Your task to perform on an android device: When is my next meeting? Image 0: 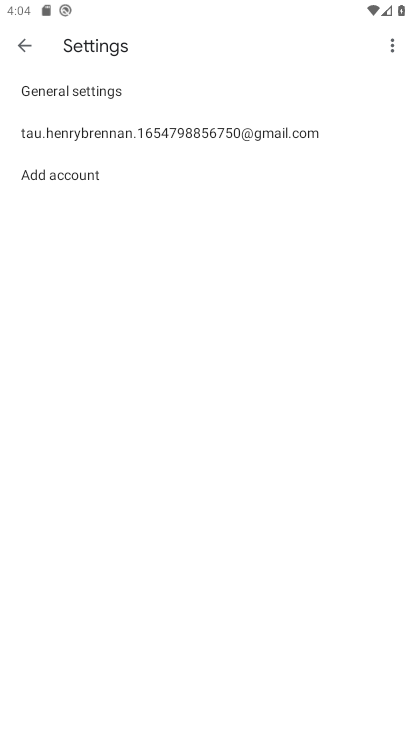
Step 0: click (15, 45)
Your task to perform on an android device: When is my next meeting? Image 1: 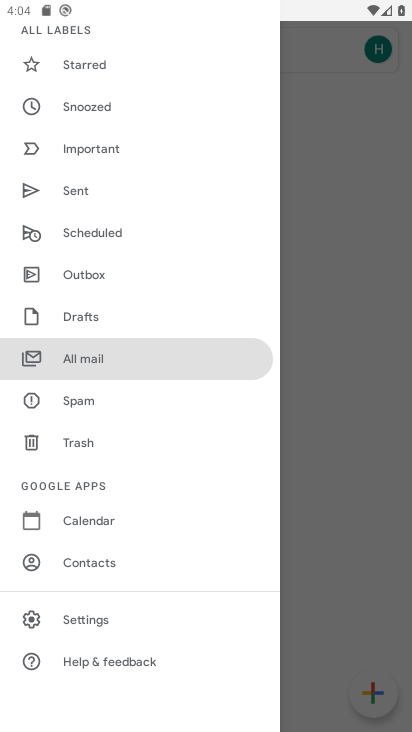
Step 1: click (357, 355)
Your task to perform on an android device: When is my next meeting? Image 2: 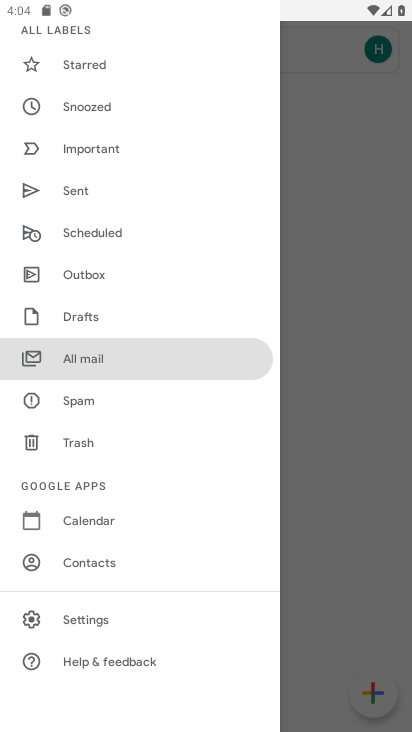
Step 2: press back button
Your task to perform on an android device: When is my next meeting? Image 3: 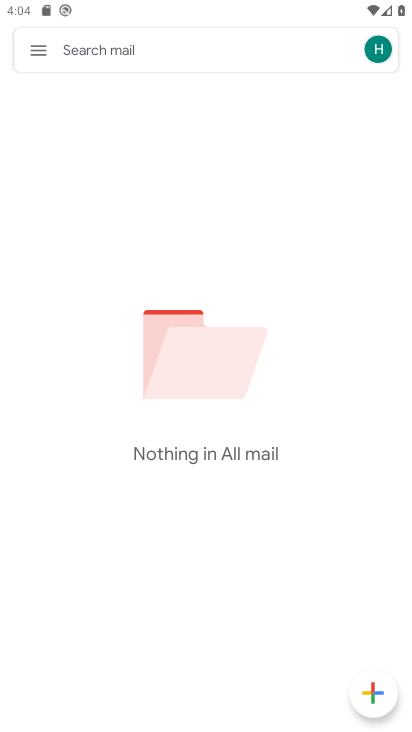
Step 3: press home button
Your task to perform on an android device: When is my next meeting? Image 4: 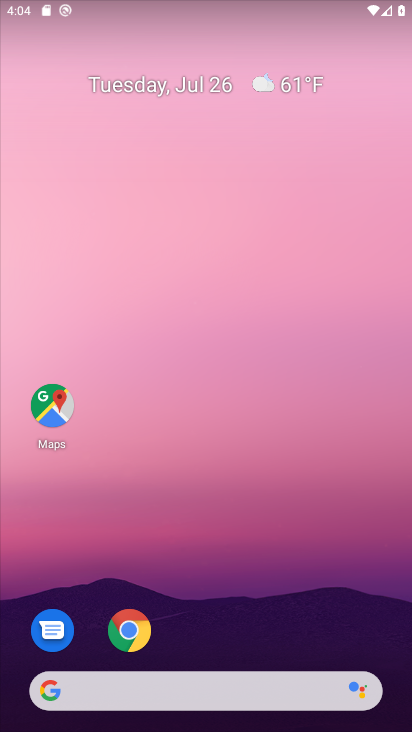
Step 4: drag from (252, 610) to (225, 54)
Your task to perform on an android device: When is my next meeting? Image 5: 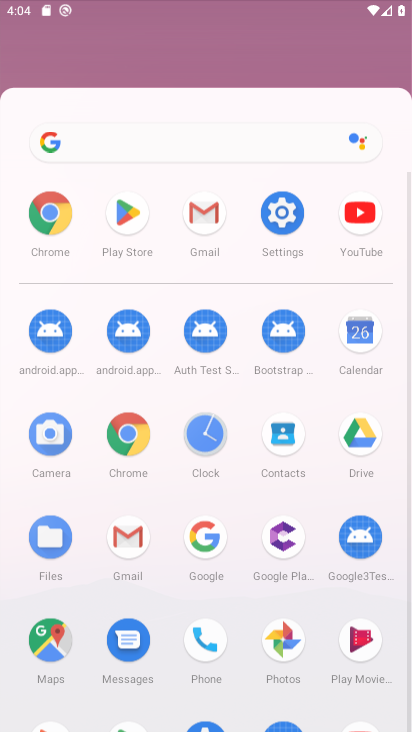
Step 5: drag from (222, 484) to (266, 118)
Your task to perform on an android device: When is my next meeting? Image 6: 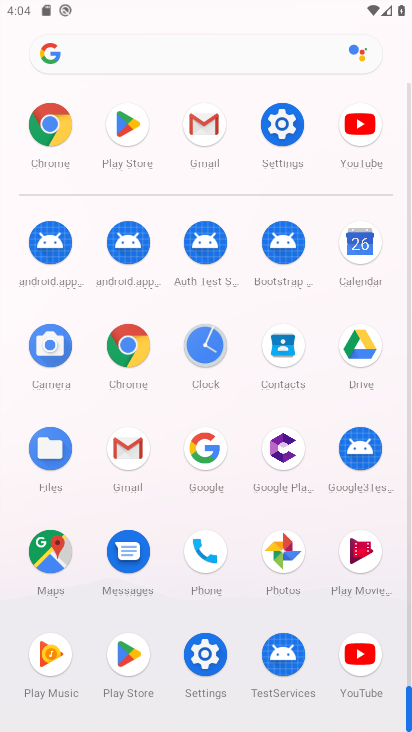
Step 6: click (347, 251)
Your task to perform on an android device: When is my next meeting? Image 7: 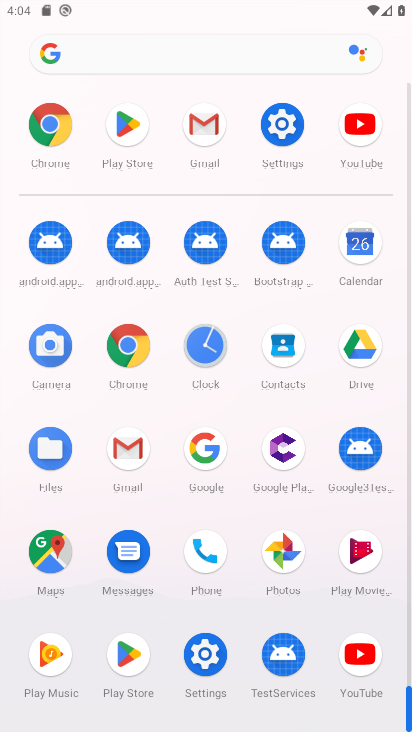
Step 7: click (347, 251)
Your task to perform on an android device: When is my next meeting? Image 8: 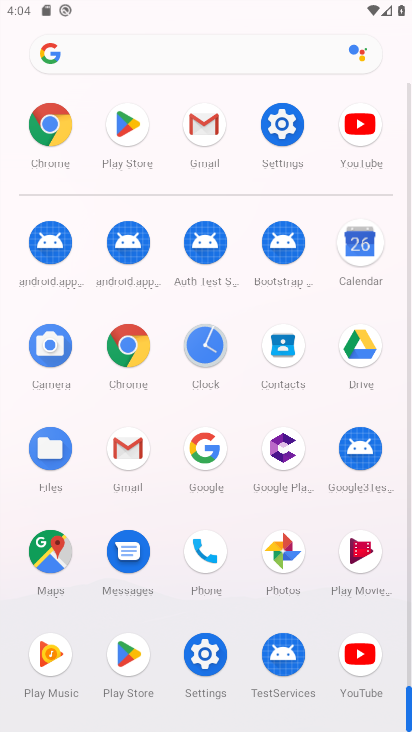
Step 8: click (348, 251)
Your task to perform on an android device: When is my next meeting? Image 9: 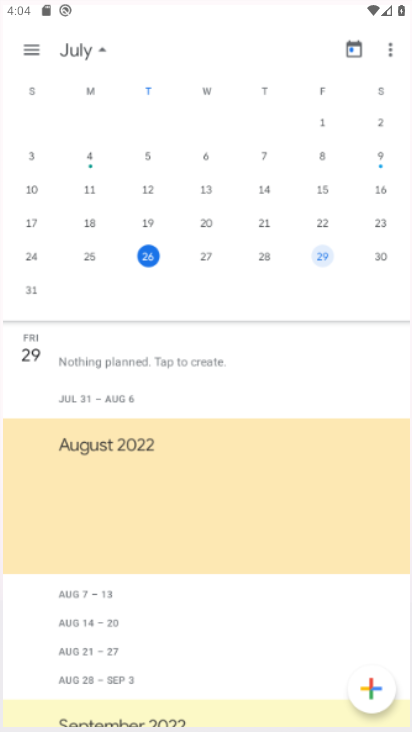
Step 9: click (348, 251)
Your task to perform on an android device: When is my next meeting? Image 10: 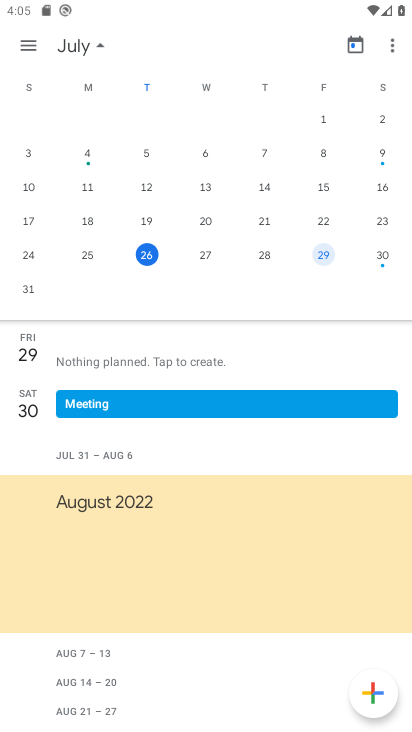
Step 10: click (327, 251)
Your task to perform on an android device: When is my next meeting? Image 11: 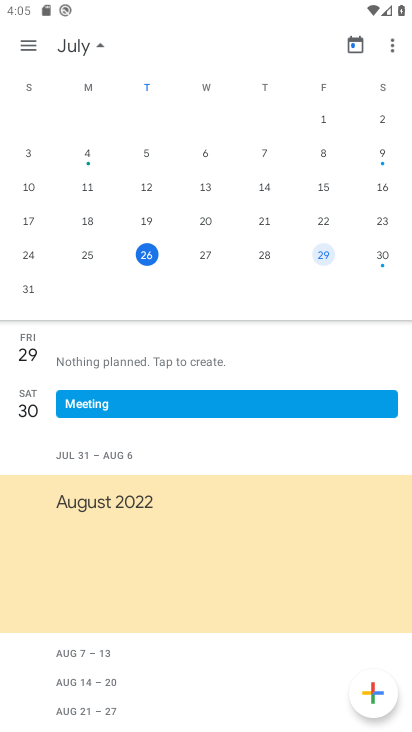
Step 11: click (325, 248)
Your task to perform on an android device: When is my next meeting? Image 12: 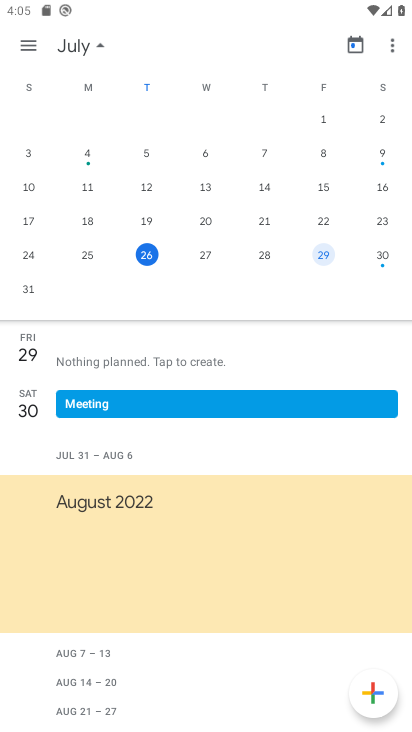
Step 12: task complete